Your task to perform on an android device: check out phone information Image 0: 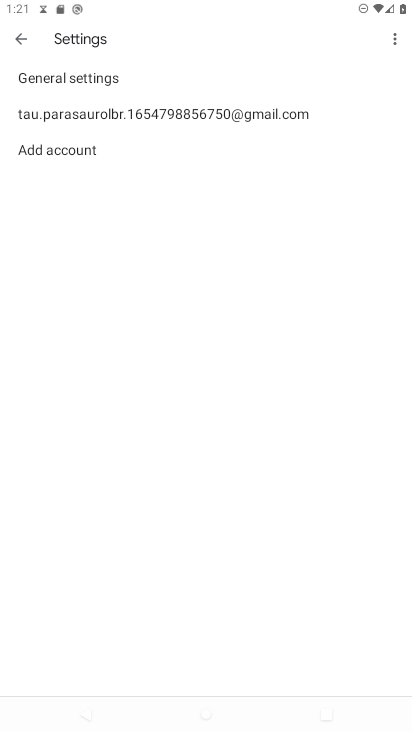
Step 0: press home button
Your task to perform on an android device: check out phone information Image 1: 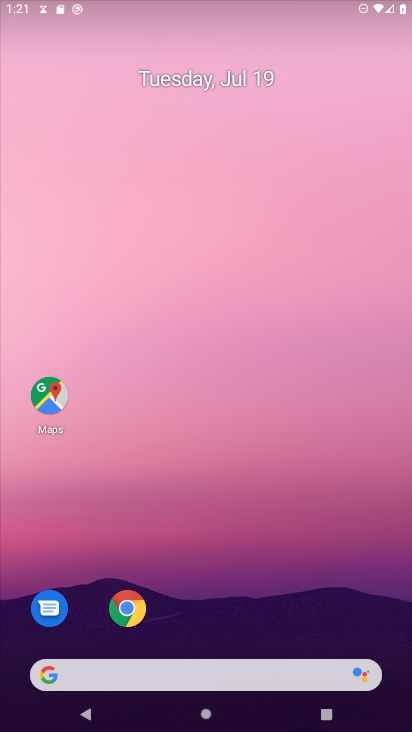
Step 1: drag from (323, 680) to (301, 0)
Your task to perform on an android device: check out phone information Image 2: 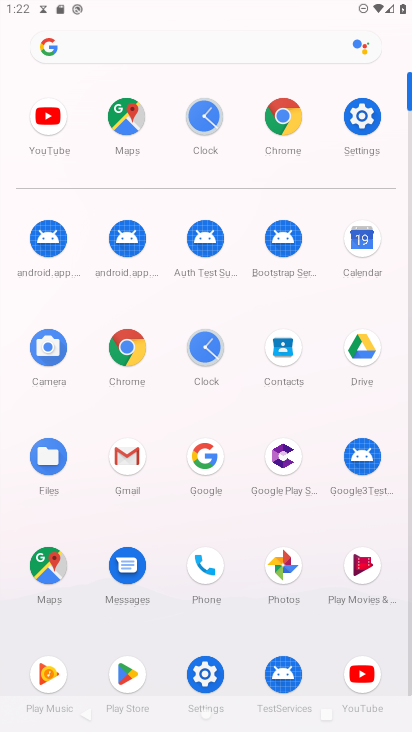
Step 2: click (367, 111)
Your task to perform on an android device: check out phone information Image 3: 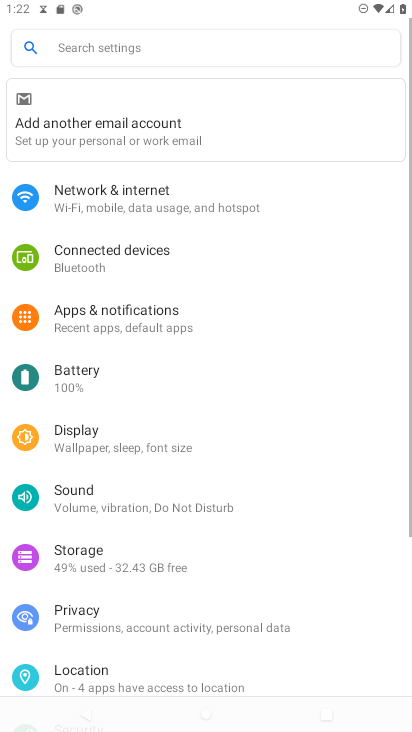
Step 3: drag from (220, 674) to (275, 87)
Your task to perform on an android device: check out phone information Image 4: 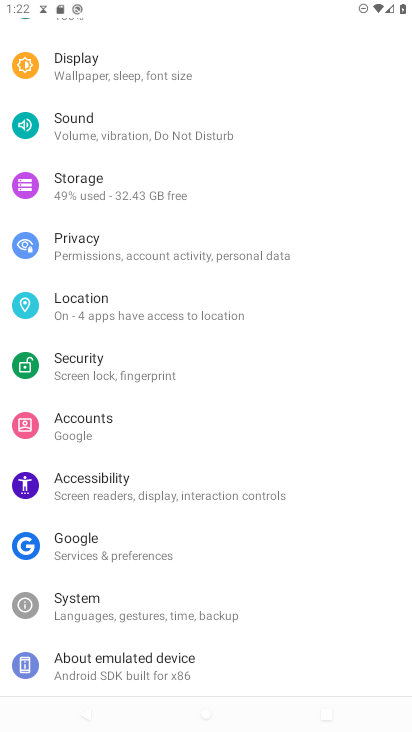
Step 4: click (222, 670)
Your task to perform on an android device: check out phone information Image 5: 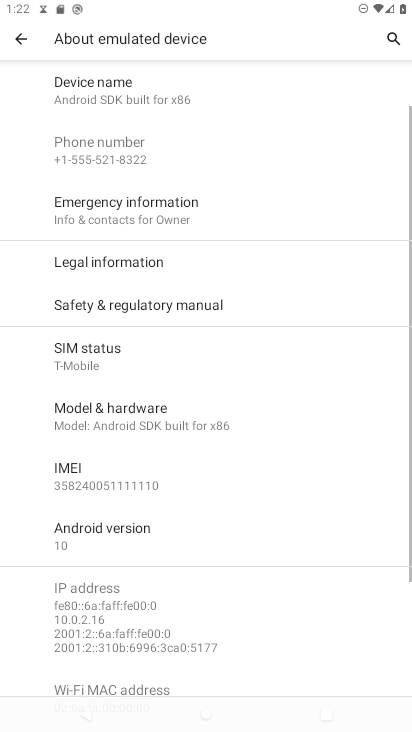
Step 5: task complete